Your task to perform on an android device: Show me the best rated vacuum on Walmart. Image 0: 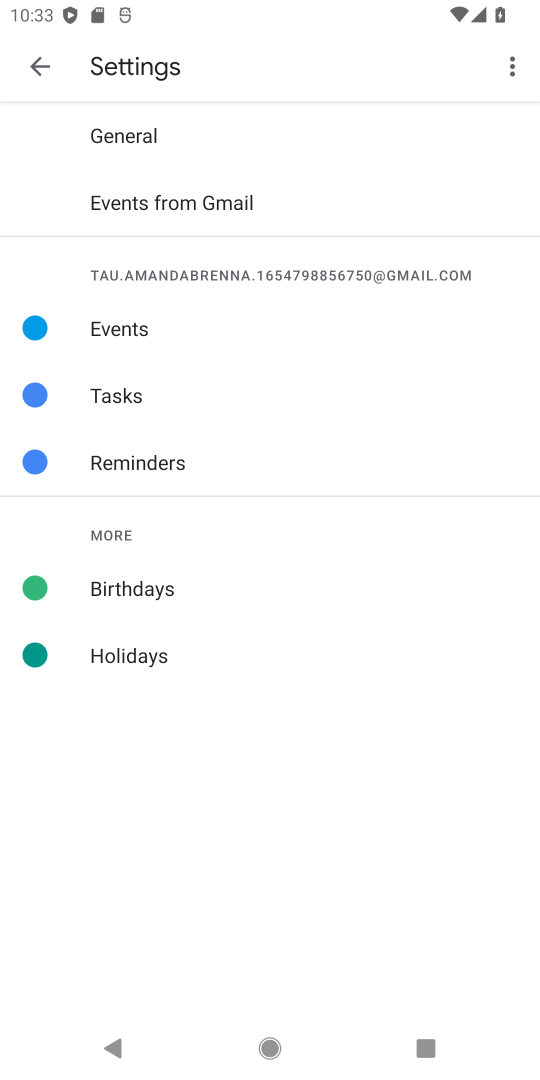
Step 0: press home button
Your task to perform on an android device: Show me the best rated vacuum on Walmart. Image 1: 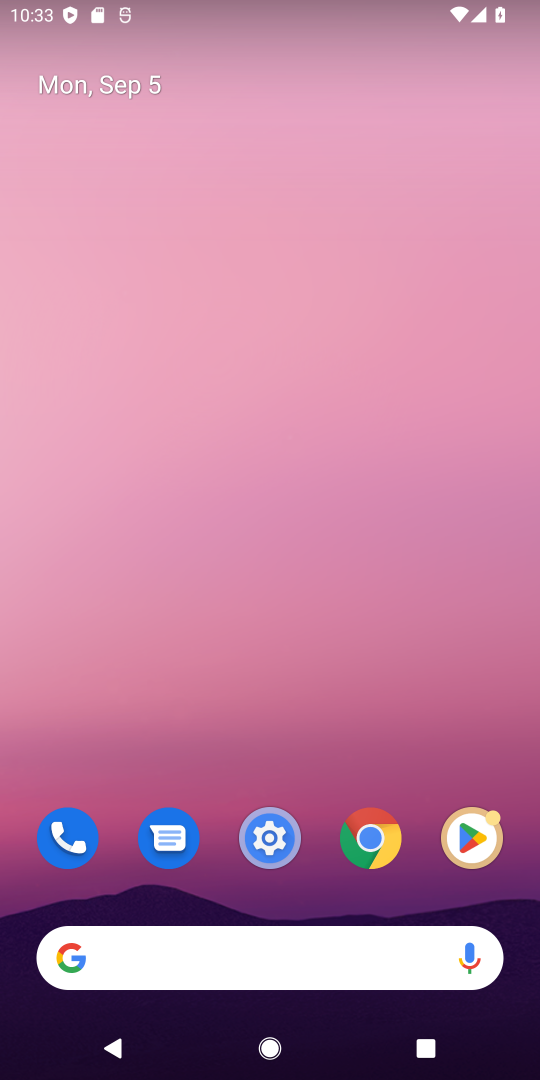
Step 1: click (254, 963)
Your task to perform on an android device: Show me the best rated vacuum on Walmart. Image 2: 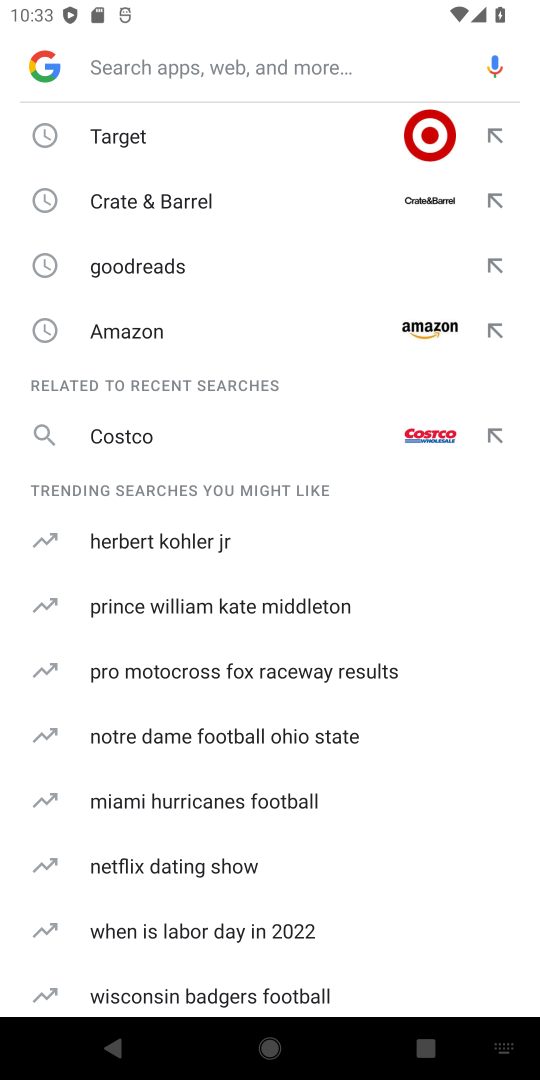
Step 2: type "Walmart."
Your task to perform on an android device: Show me the best rated vacuum on Walmart. Image 3: 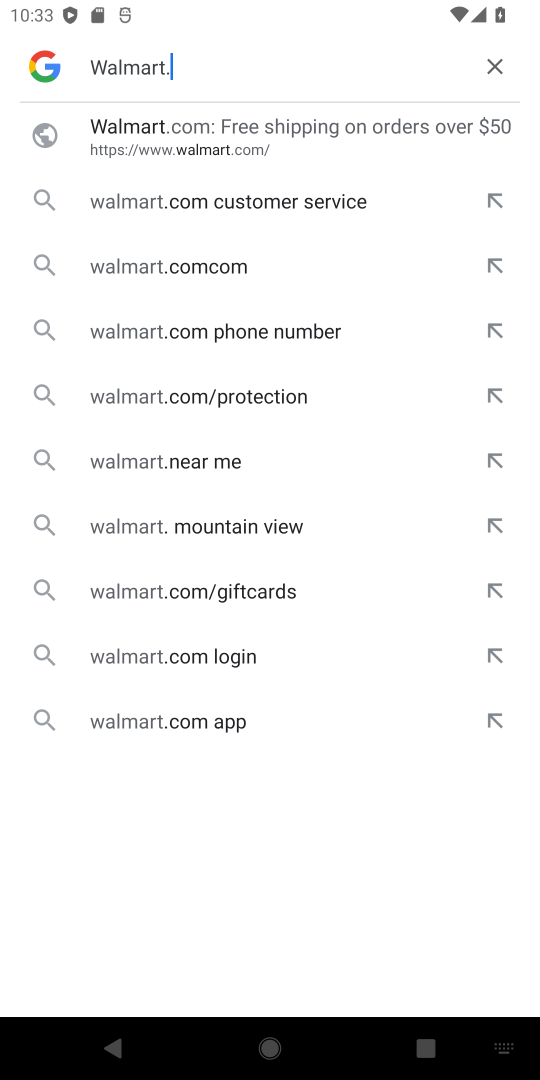
Step 3: click (166, 159)
Your task to perform on an android device: Show me the best rated vacuum on Walmart. Image 4: 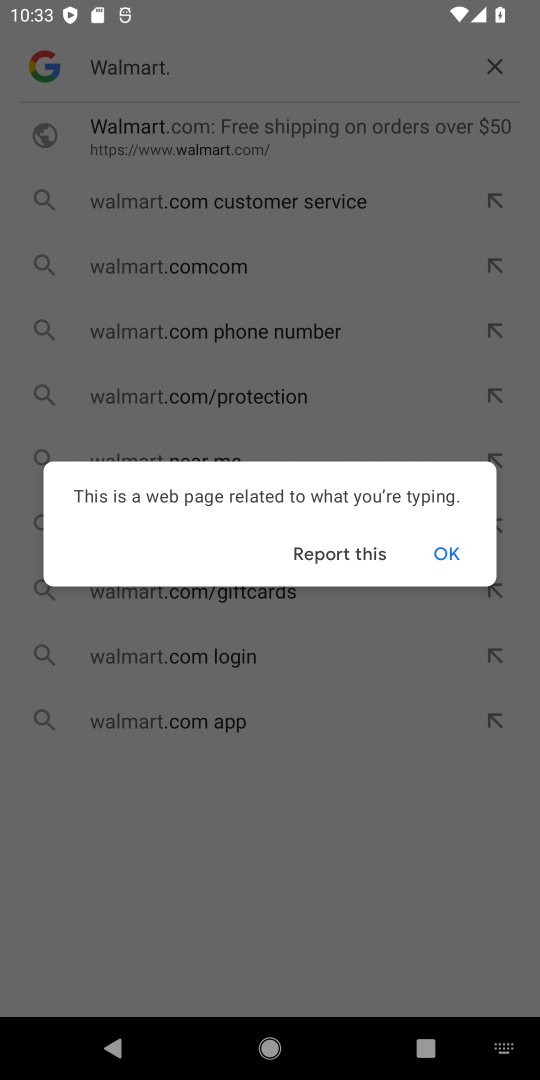
Step 4: click (426, 552)
Your task to perform on an android device: Show me the best rated vacuum on Walmart. Image 5: 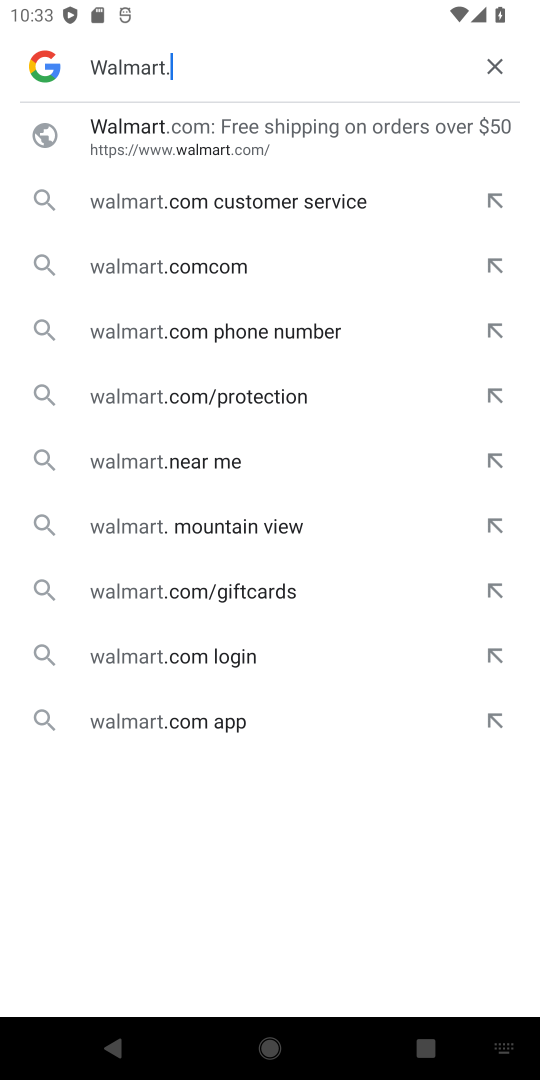
Step 5: click (182, 153)
Your task to perform on an android device: Show me the best rated vacuum on Walmart. Image 6: 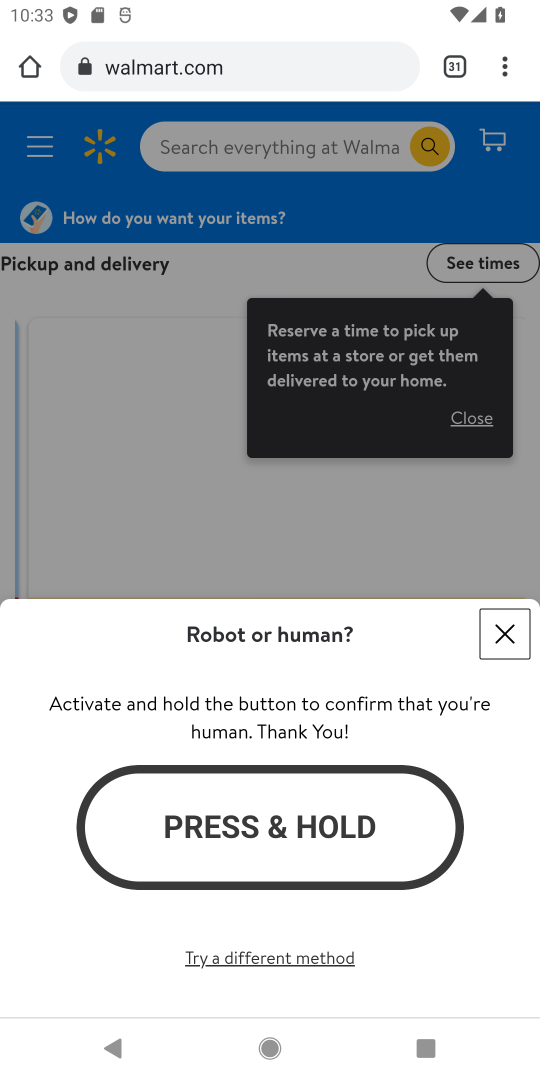
Step 6: click (498, 644)
Your task to perform on an android device: Show me the best rated vacuum on Walmart. Image 7: 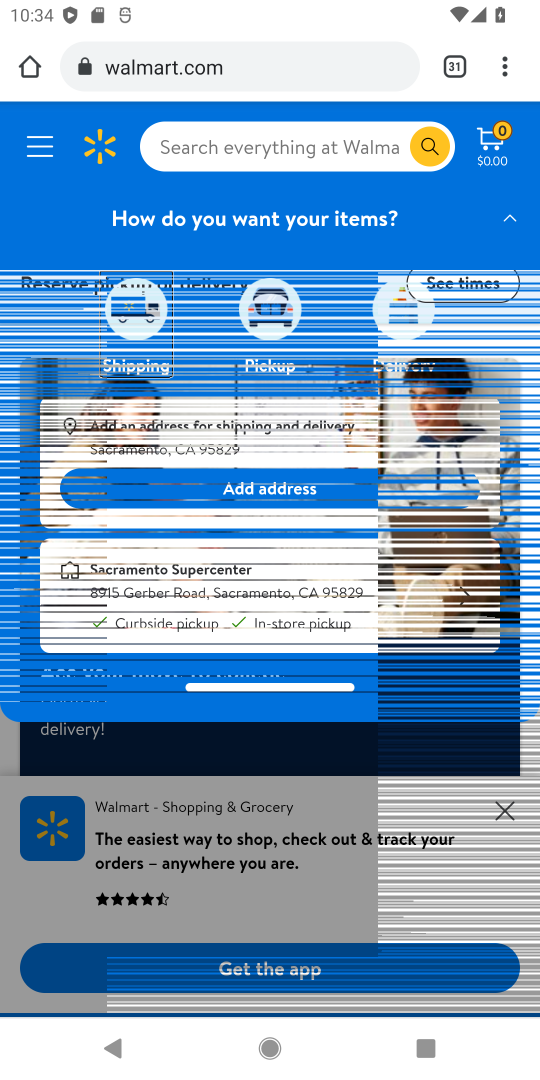
Step 7: click (248, 132)
Your task to perform on an android device: Show me the best rated vacuum on Walmart. Image 8: 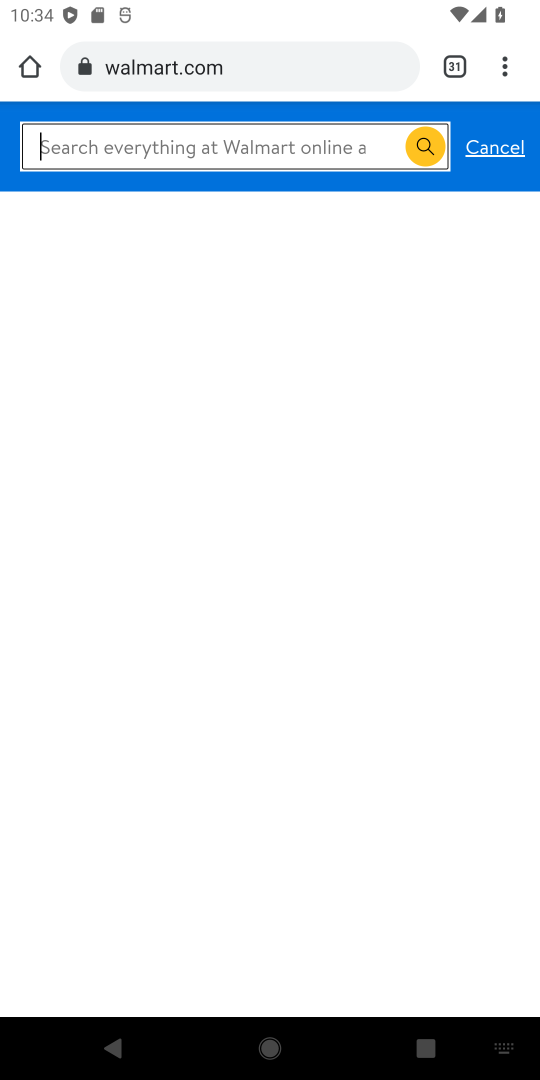
Step 8: type "vacuum"
Your task to perform on an android device: Show me the best rated vacuum on Walmart. Image 9: 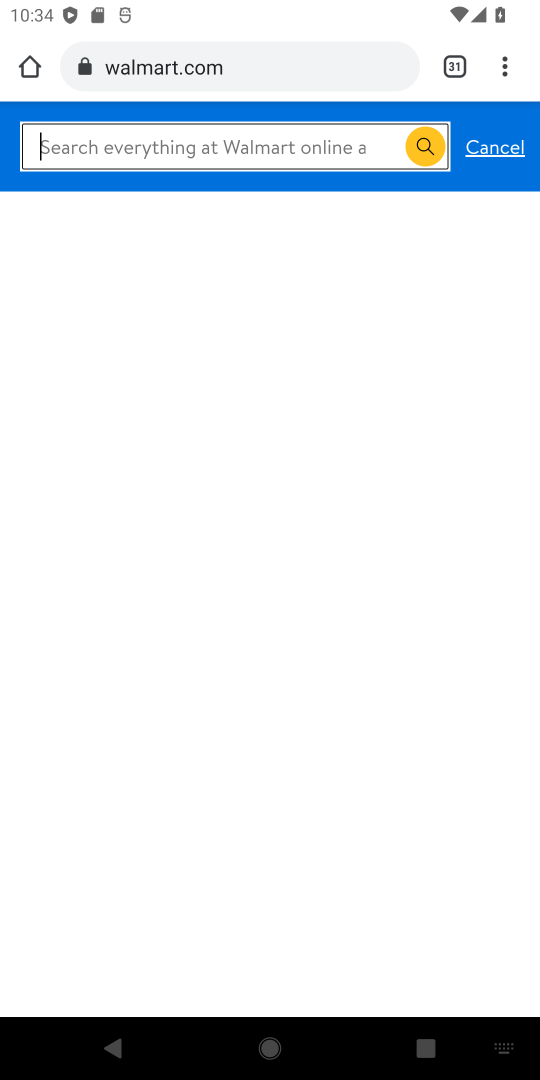
Step 9: type ""
Your task to perform on an android device: Show me the best rated vacuum on Walmart. Image 10: 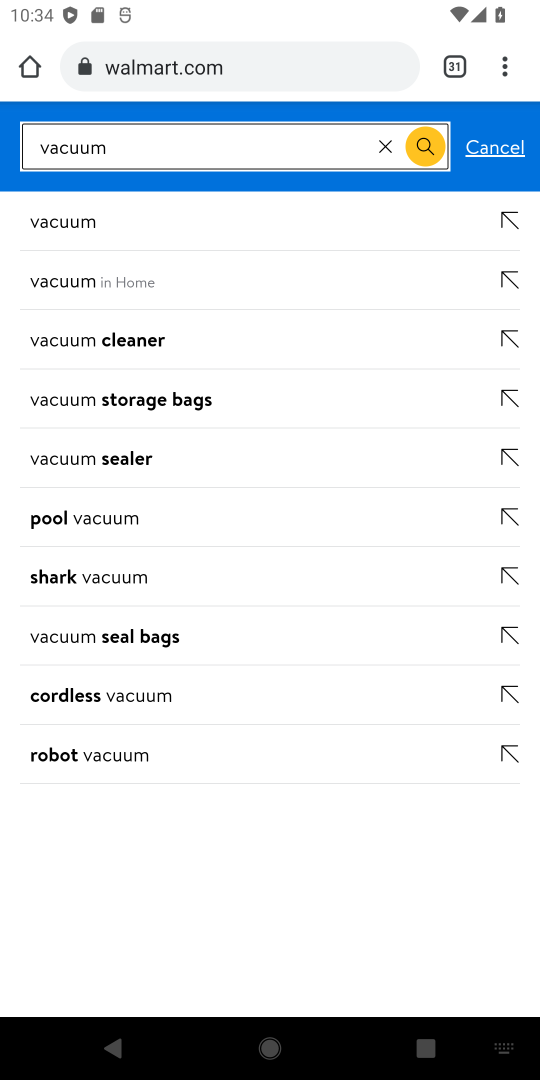
Step 10: click (73, 208)
Your task to perform on an android device: Show me the best rated vacuum on Walmart. Image 11: 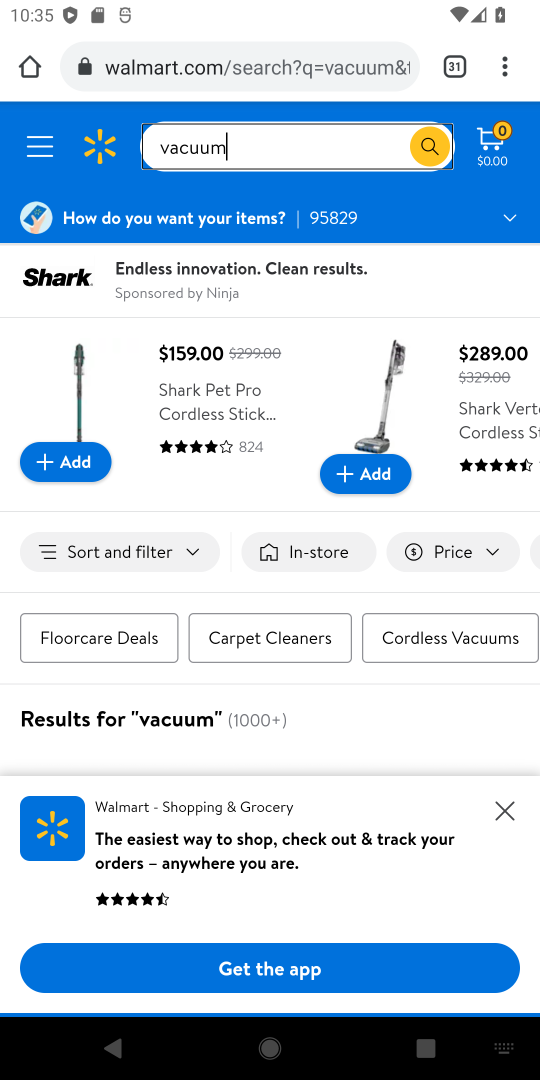
Step 11: task complete